Your task to perform on an android device: What's the weather? Image 0: 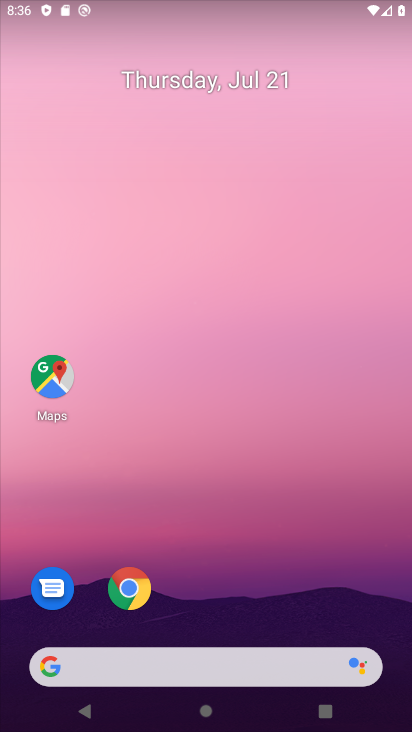
Step 0: click (242, 7)
Your task to perform on an android device: What's the weather? Image 1: 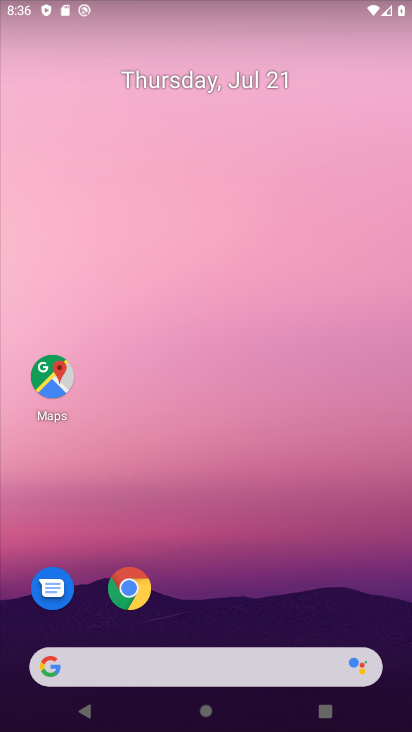
Step 1: drag from (239, 441) to (182, 63)
Your task to perform on an android device: What's the weather? Image 2: 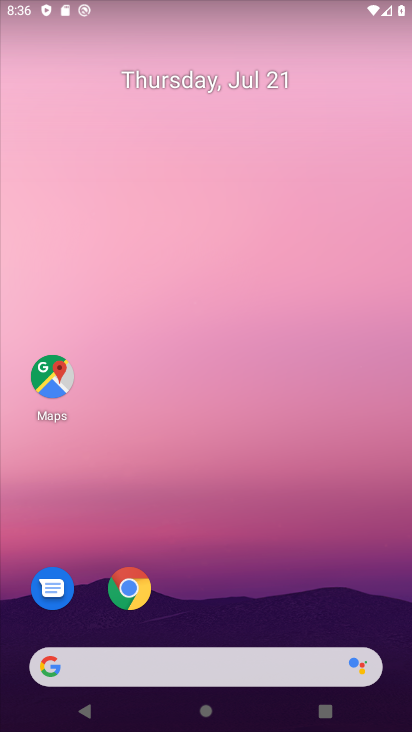
Step 2: drag from (177, 447) to (166, 23)
Your task to perform on an android device: What's the weather? Image 3: 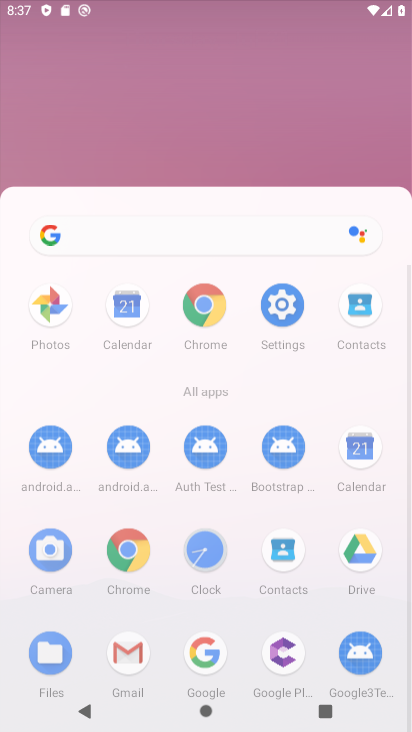
Step 3: drag from (169, 424) to (166, 151)
Your task to perform on an android device: What's the weather? Image 4: 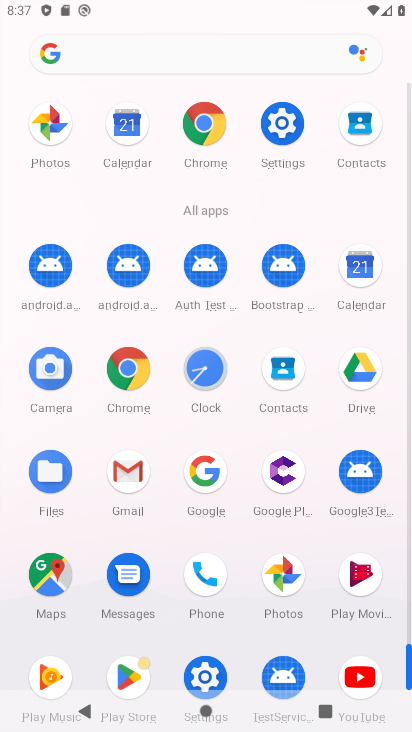
Step 4: drag from (198, 541) to (190, 141)
Your task to perform on an android device: What's the weather? Image 5: 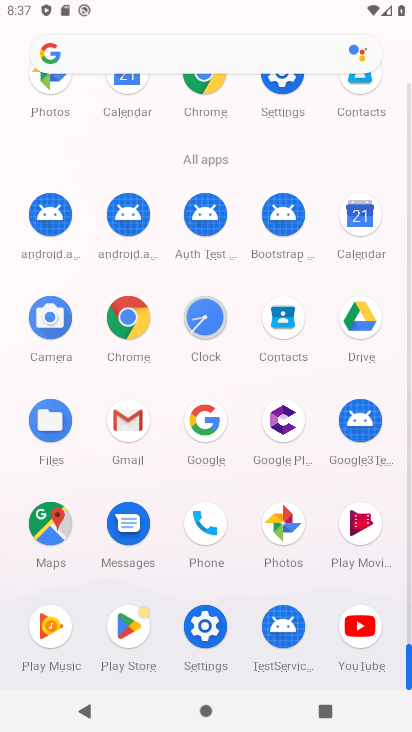
Step 5: click (122, 323)
Your task to perform on an android device: What's the weather? Image 6: 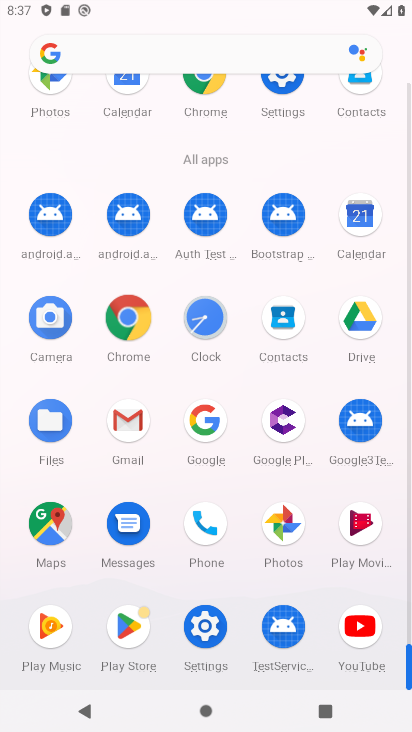
Step 6: click (134, 331)
Your task to perform on an android device: What's the weather? Image 7: 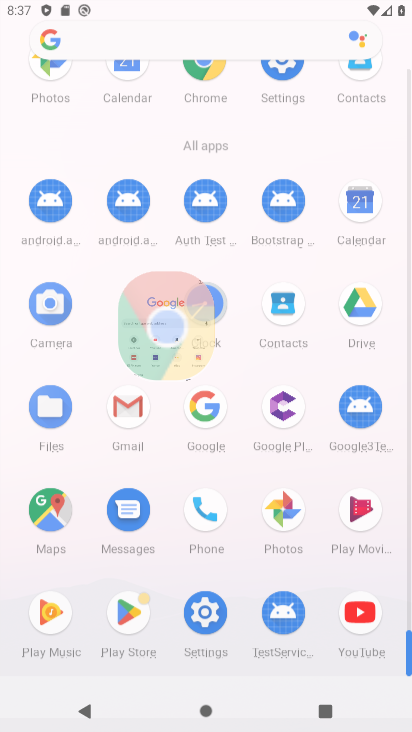
Step 7: click (137, 331)
Your task to perform on an android device: What's the weather? Image 8: 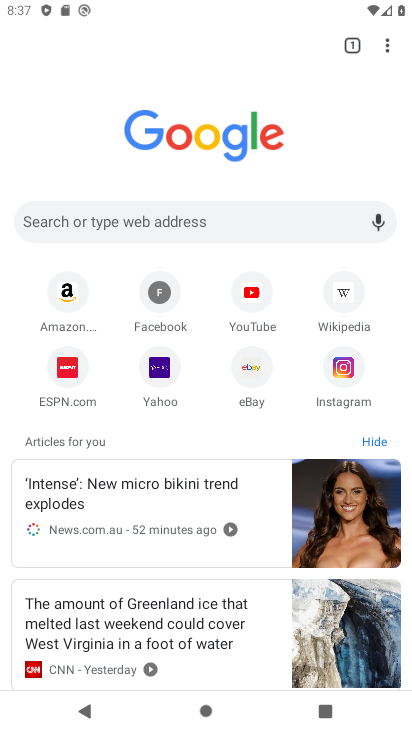
Step 8: click (105, 203)
Your task to perform on an android device: What's the weather? Image 9: 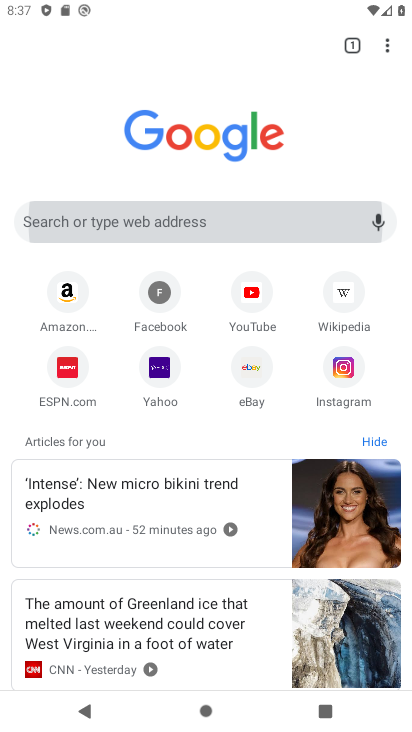
Step 9: click (96, 215)
Your task to perform on an android device: What's the weather? Image 10: 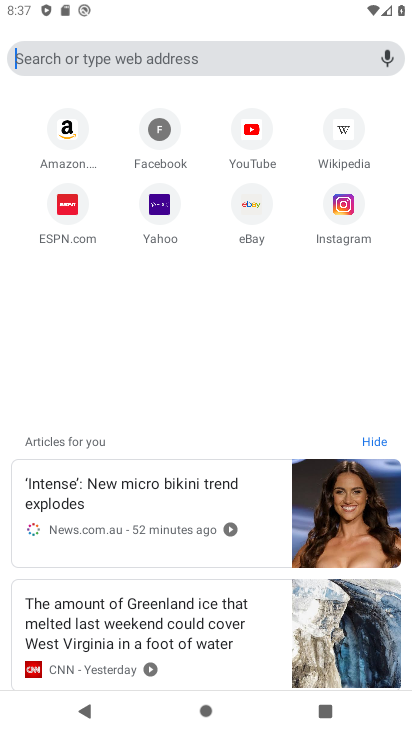
Step 10: click (102, 219)
Your task to perform on an android device: What's the weather? Image 11: 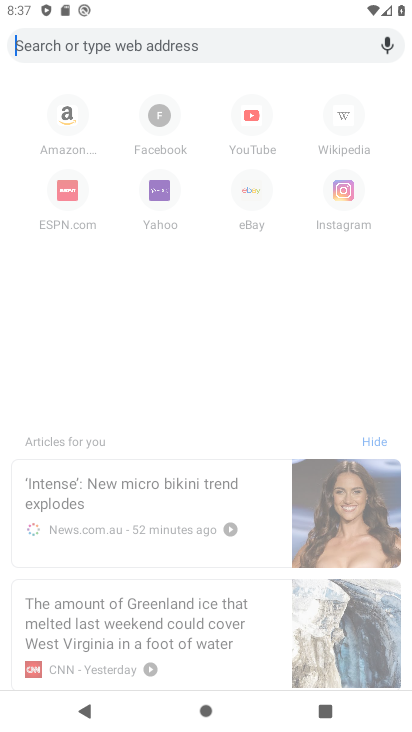
Step 11: click (110, 219)
Your task to perform on an android device: What's the weather? Image 12: 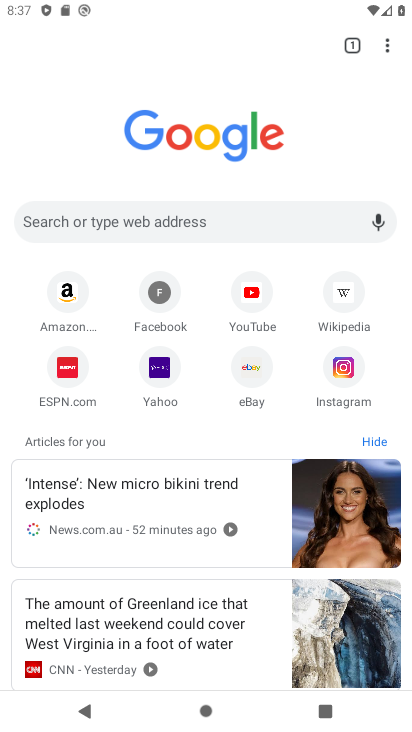
Step 12: type "weather?"
Your task to perform on an android device: What's the weather? Image 13: 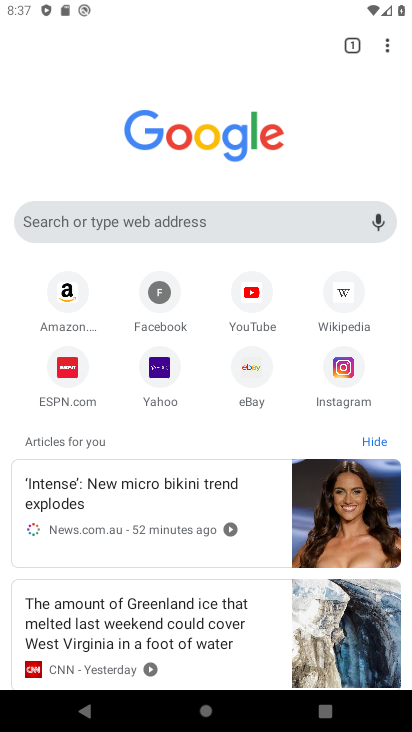
Step 13: click (54, 222)
Your task to perform on an android device: What's the weather? Image 14: 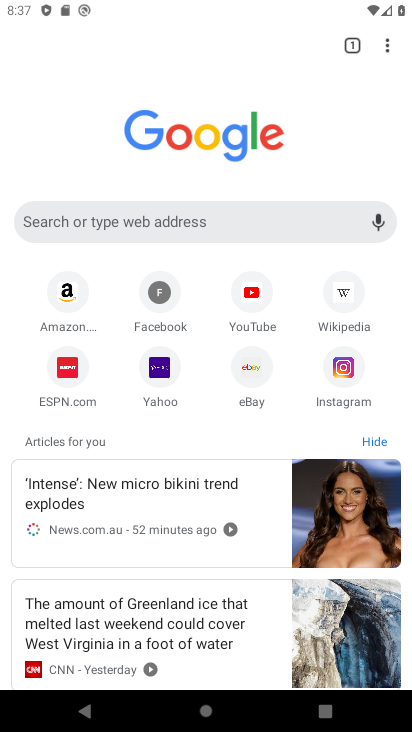
Step 14: click (56, 224)
Your task to perform on an android device: What's the weather? Image 15: 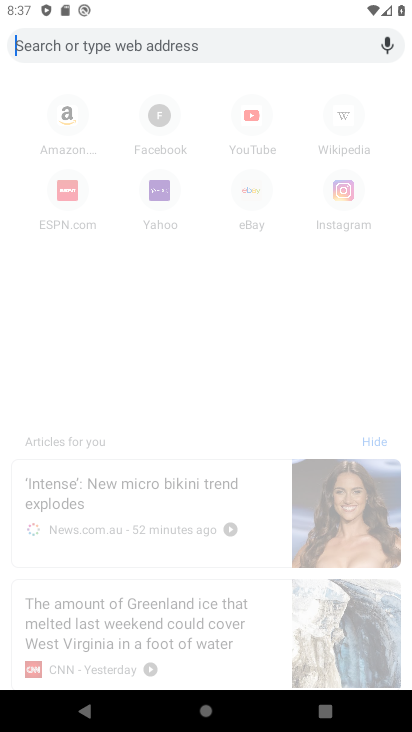
Step 15: type "weather?"
Your task to perform on an android device: What's the weather? Image 16: 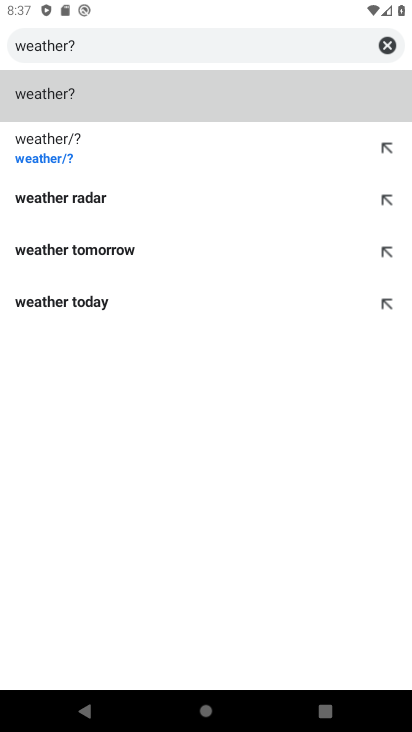
Step 16: click (45, 155)
Your task to perform on an android device: What's the weather? Image 17: 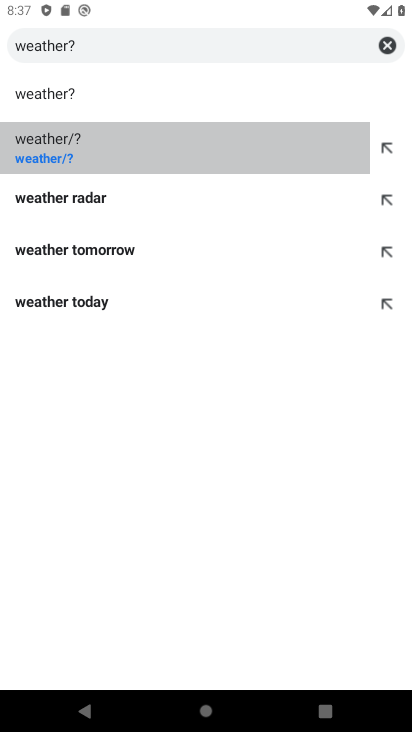
Step 17: click (45, 154)
Your task to perform on an android device: What's the weather? Image 18: 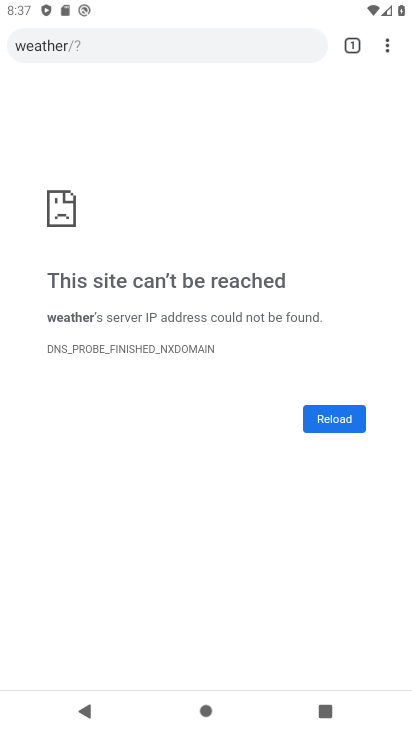
Step 18: task complete